Your task to perform on an android device: toggle data saver in the chrome app Image 0: 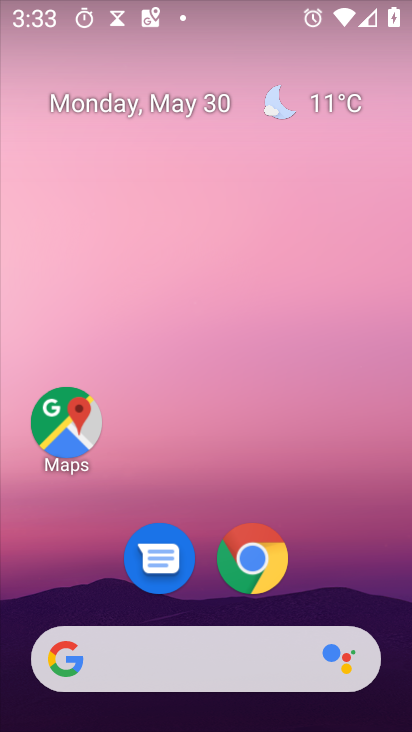
Step 0: click (255, 543)
Your task to perform on an android device: toggle data saver in the chrome app Image 1: 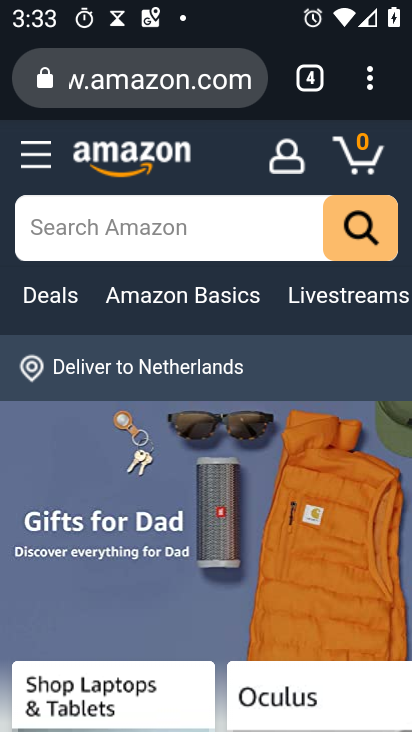
Step 1: click (364, 67)
Your task to perform on an android device: toggle data saver in the chrome app Image 2: 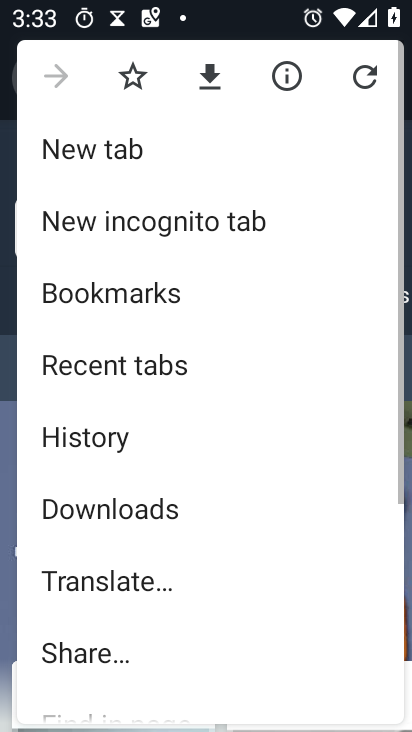
Step 2: drag from (125, 631) to (233, 125)
Your task to perform on an android device: toggle data saver in the chrome app Image 3: 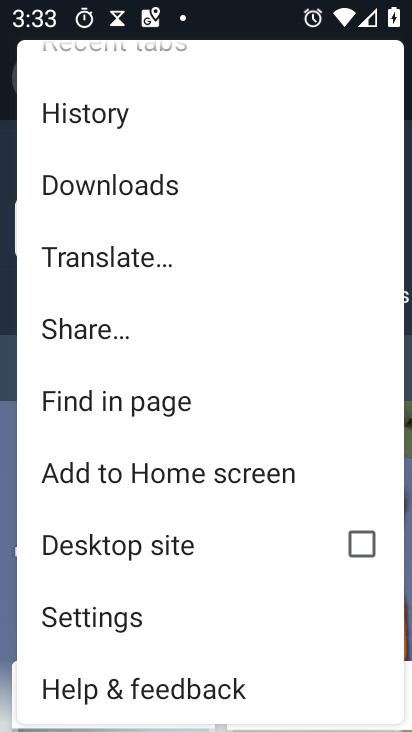
Step 3: click (96, 613)
Your task to perform on an android device: toggle data saver in the chrome app Image 4: 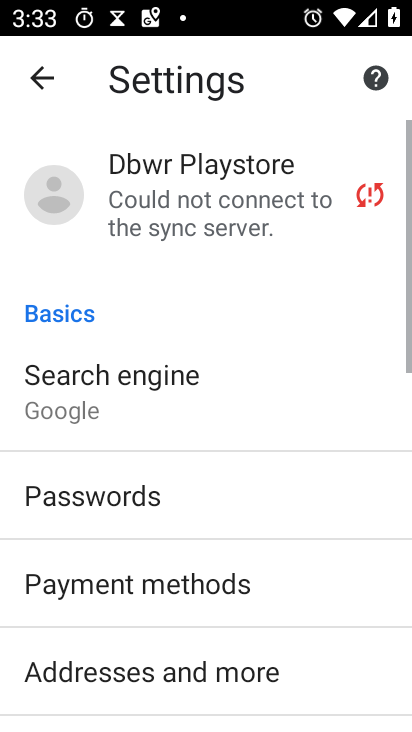
Step 4: drag from (203, 651) to (288, 34)
Your task to perform on an android device: toggle data saver in the chrome app Image 5: 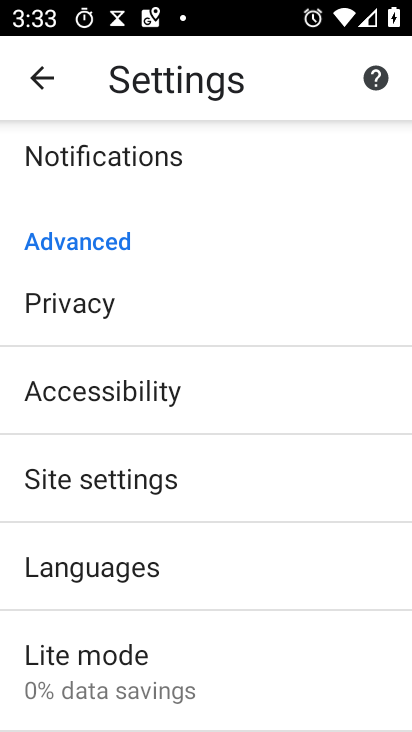
Step 5: click (116, 668)
Your task to perform on an android device: toggle data saver in the chrome app Image 6: 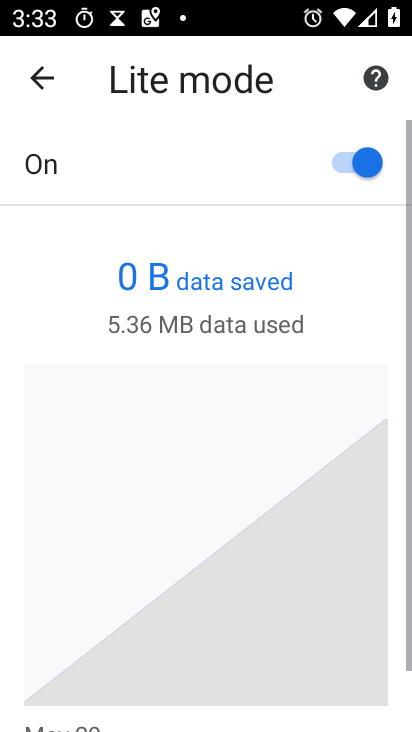
Step 6: click (351, 158)
Your task to perform on an android device: toggle data saver in the chrome app Image 7: 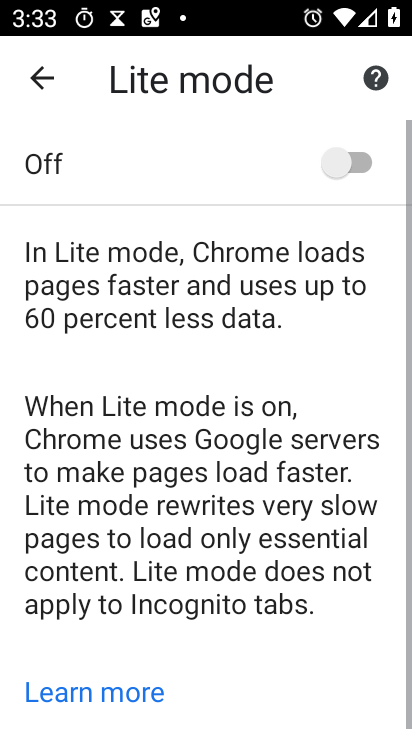
Step 7: task complete